Your task to perform on an android device: Open Google Maps Image 0: 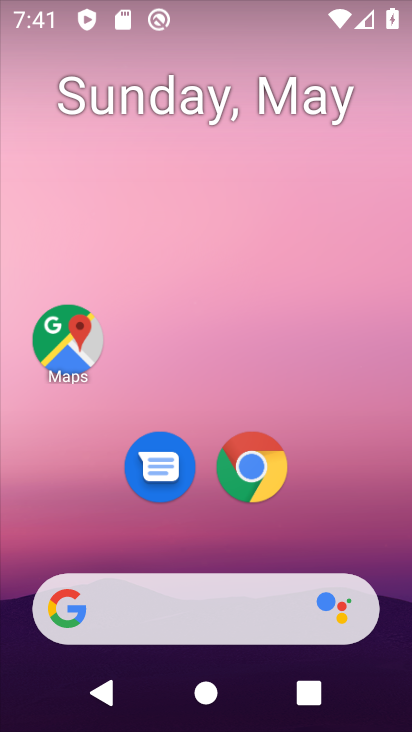
Step 0: click (58, 338)
Your task to perform on an android device: Open Google Maps Image 1: 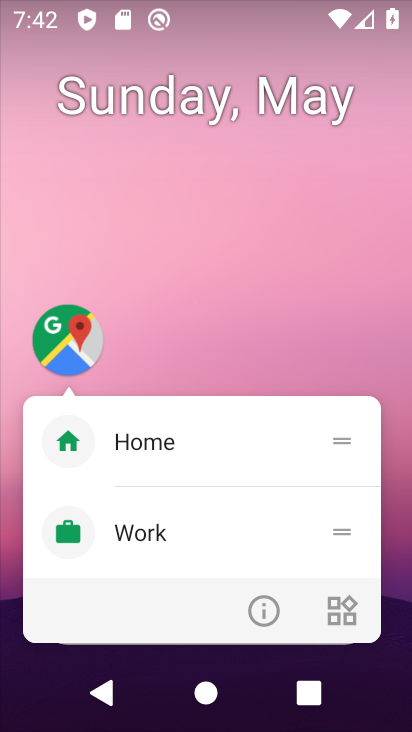
Step 1: click (73, 339)
Your task to perform on an android device: Open Google Maps Image 2: 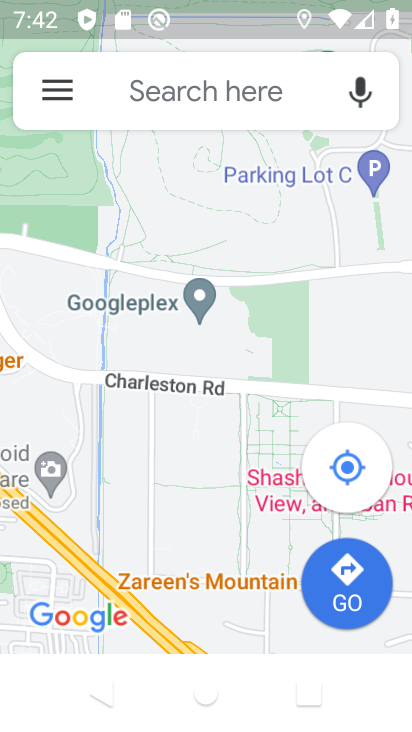
Step 2: task complete